Your task to perform on an android device: Go to battery settings Image 0: 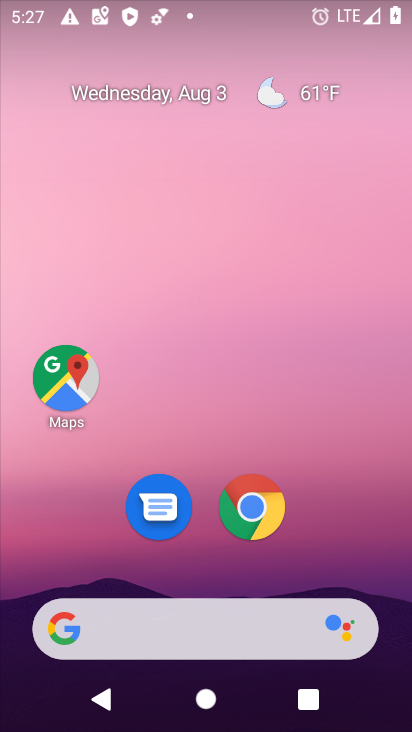
Step 0: drag from (339, 551) to (36, 2)
Your task to perform on an android device: Go to battery settings Image 1: 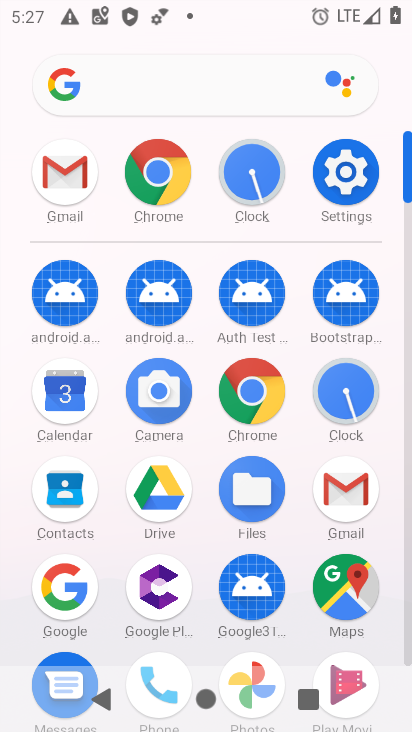
Step 1: click (363, 167)
Your task to perform on an android device: Go to battery settings Image 2: 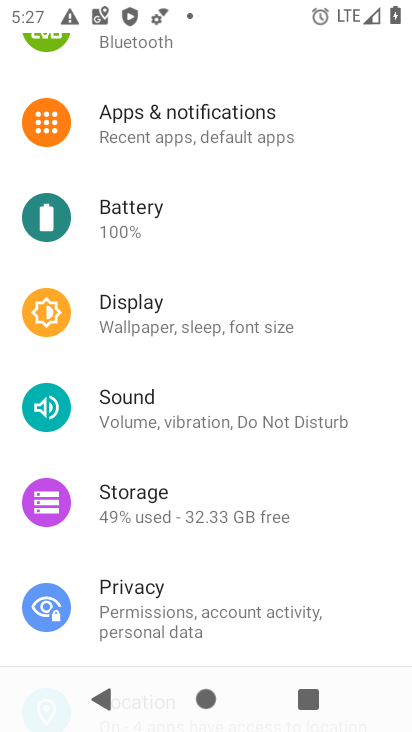
Step 2: click (129, 214)
Your task to perform on an android device: Go to battery settings Image 3: 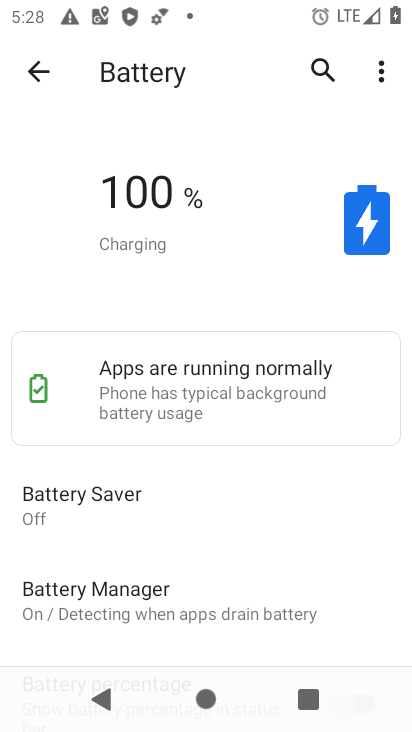
Step 3: task complete